Your task to perform on an android device: open app "Facebook Messenger" (install if not already installed) and enter user name: "divorce@inbox.com" and password: "caviar" Image 0: 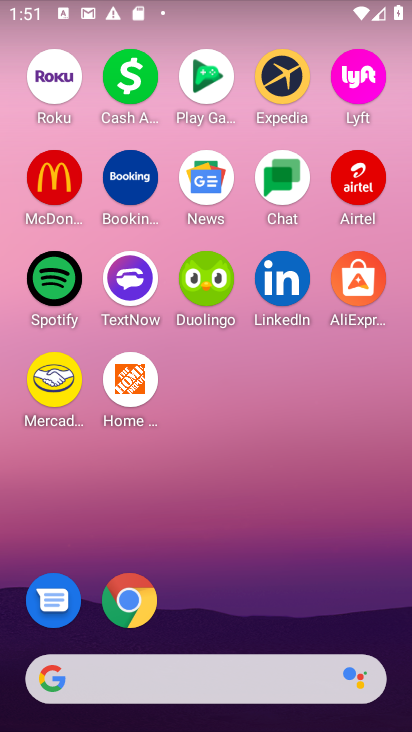
Step 0: drag from (202, 623) to (211, 113)
Your task to perform on an android device: open app "Facebook Messenger" (install if not already installed) and enter user name: "divorce@inbox.com" and password: "caviar" Image 1: 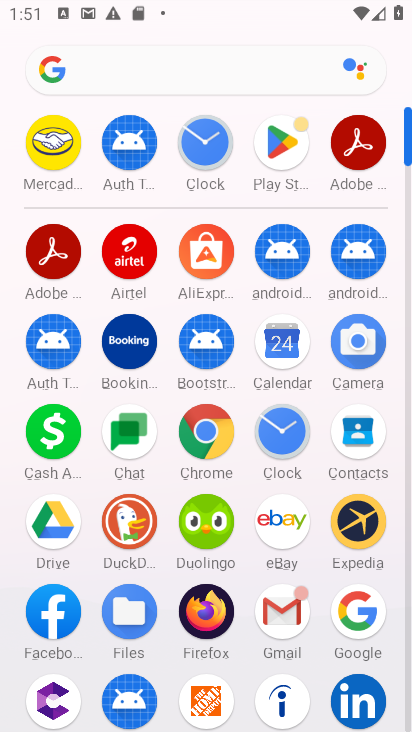
Step 1: click (290, 164)
Your task to perform on an android device: open app "Facebook Messenger" (install if not already installed) and enter user name: "divorce@inbox.com" and password: "caviar" Image 2: 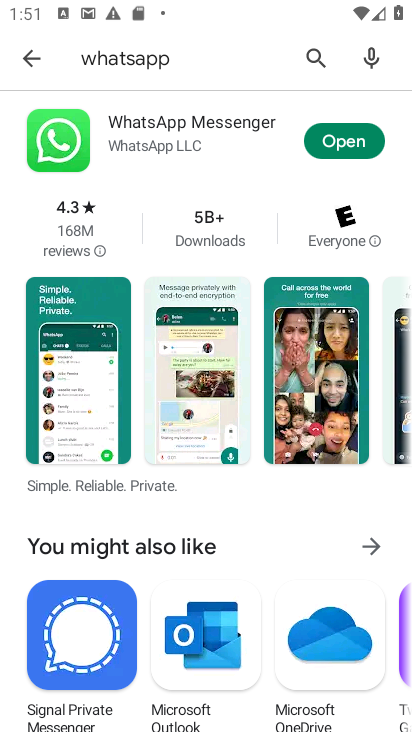
Step 2: click (310, 59)
Your task to perform on an android device: open app "Facebook Messenger" (install if not already installed) and enter user name: "divorce@inbox.com" and password: "caviar" Image 3: 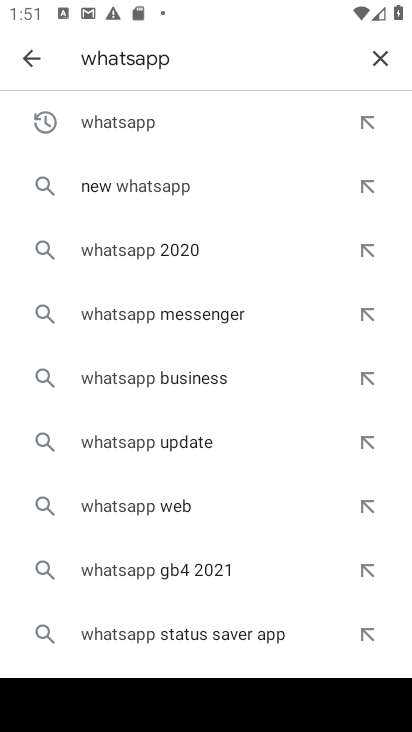
Step 3: click (377, 59)
Your task to perform on an android device: open app "Facebook Messenger" (install if not already installed) and enter user name: "divorce@inbox.com" and password: "caviar" Image 4: 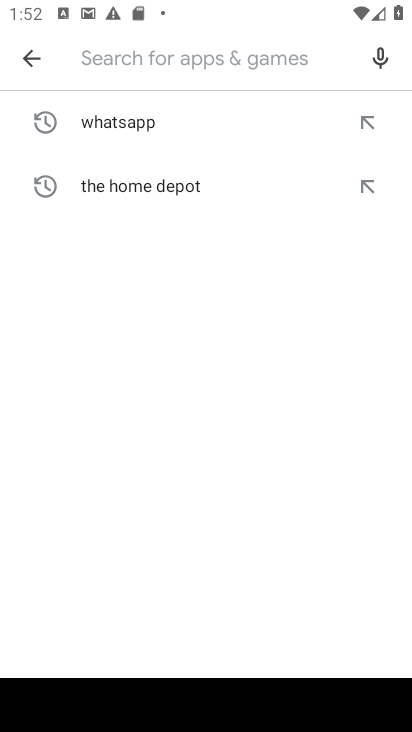
Step 4: type "facebook"
Your task to perform on an android device: open app "Facebook Messenger" (install if not already installed) and enter user name: "divorce@inbox.com" and password: "caviar" Image 5: 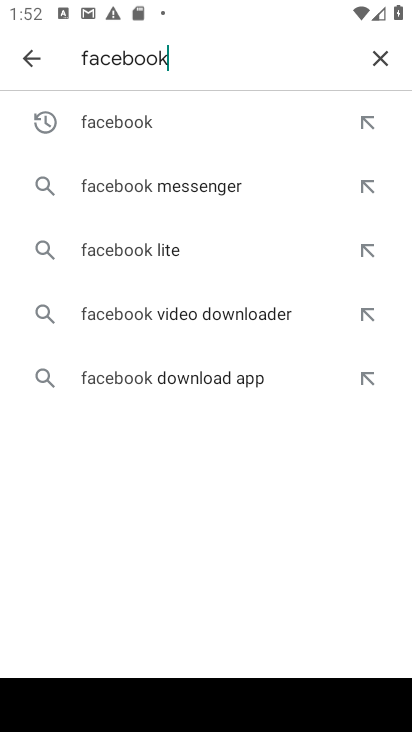
Step 5: click (131, 120)
Your task to perform on an android device: open app "Facebook Messenger" (install if not already installed) and enter user name: "divorce@inbox.com" and password: "caviar" Image 6: 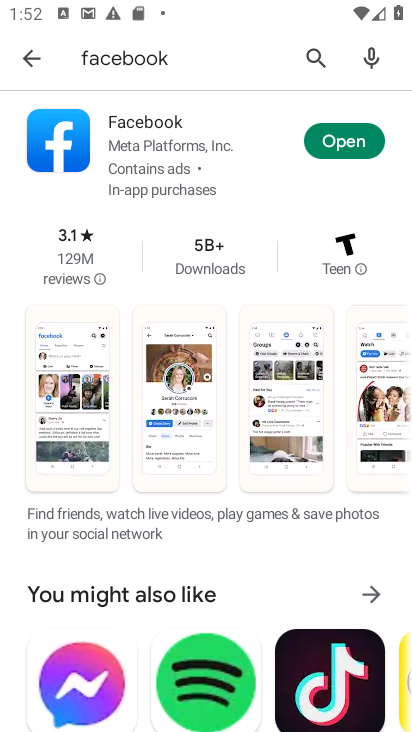
Step 6: click (304, 143)
Your task to perform on an android device: open app "Facebook Messenger" (install if not already installed) and enter user name: "divorce@inbox.com" and password: "caviar" Image 7: 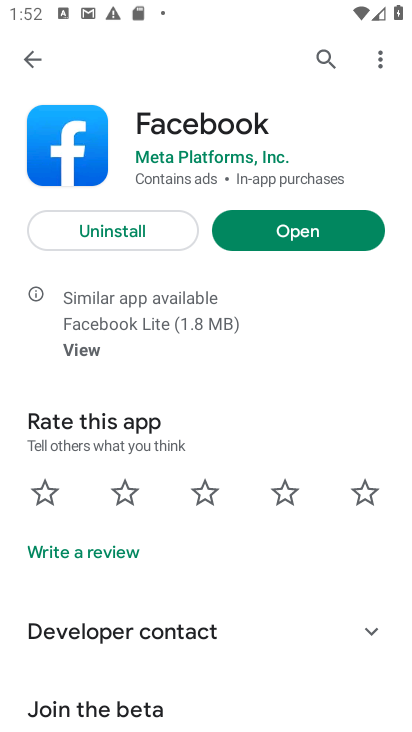
Step 7: click (293, 218)
Your task to perform on an android device: open app "Facebook Messenger" (install if not already installed) and enter user name: "divorce@inbox.com" and password: "caviar" Image 8: 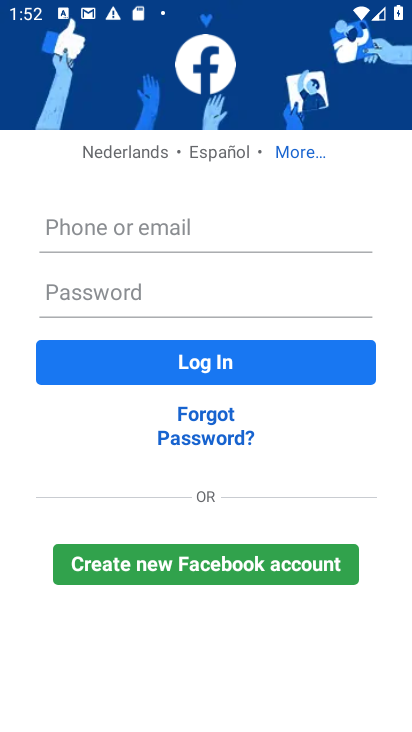
Step 8: click (236, 240)
Your task to perform on an android device: open app "Facebook Messenger" (install if not already installed) and enter user name: "divorce@inbox.com" and password: "caviar" Image 9: 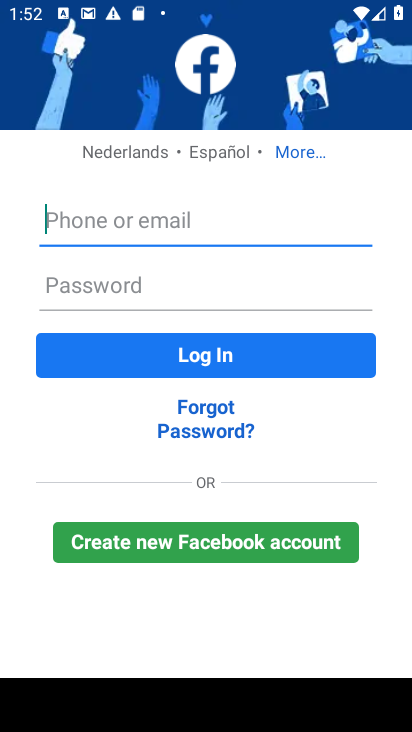
Step 9: type "divorce@inbox.com"
Your task to perform on an android device: open app "Facebook Messenger" (install if not already installed) and enter user name: "divorce@inbox.com" and password: "caviar" Image 10: 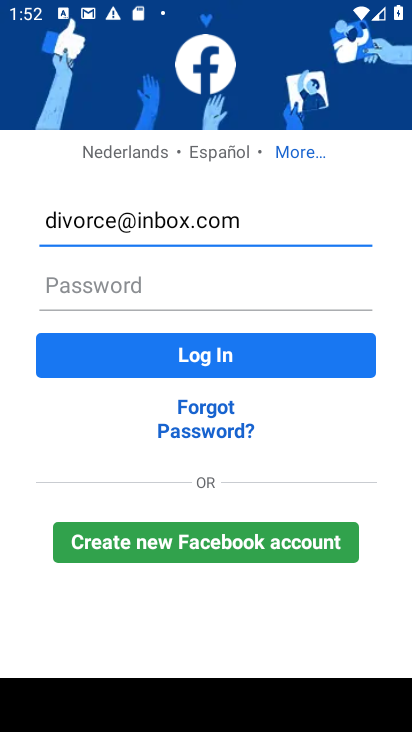
Step 10: click (181, 282)
Your task to perform on an android device: open app "Facebook Messenger" (install if not already installed) and enter user name: "divorce@inbox.com" and password: "caviar" Image 11: 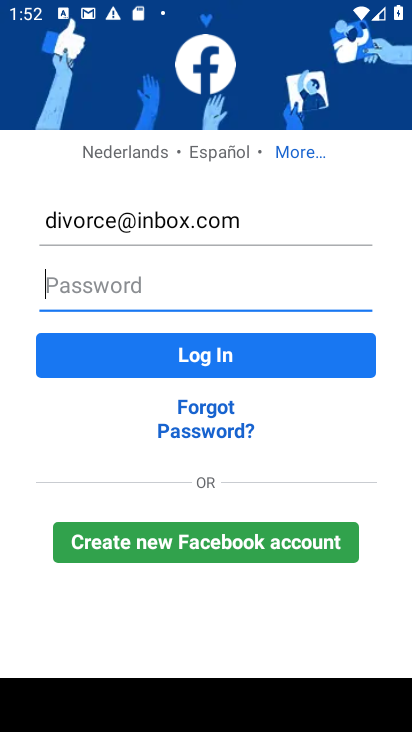
Step 11: type "caviar"
Your task to perform on an android device: open app "Facebook Messenger" (install if not already installed) and enter user name: "divorce@inbox.com" and password: "caviar" Image 12: 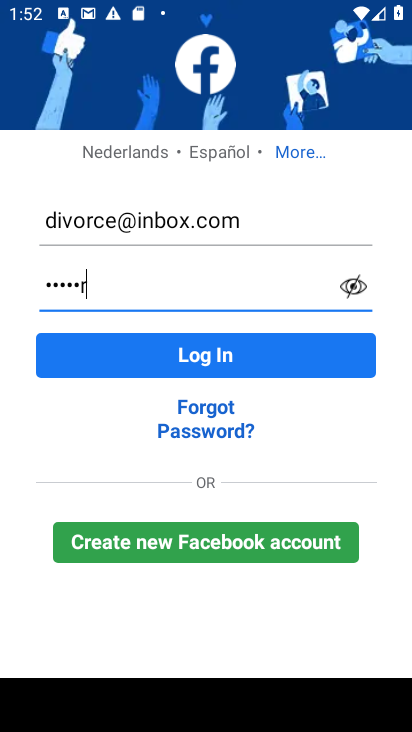
Step 12: click (146, 351)
Your task to perform on an android device: open app "Facebook Messenger" (install if not already installed) and enter user name: "divorce@inbox.com" and password: "caviar" Image 13: 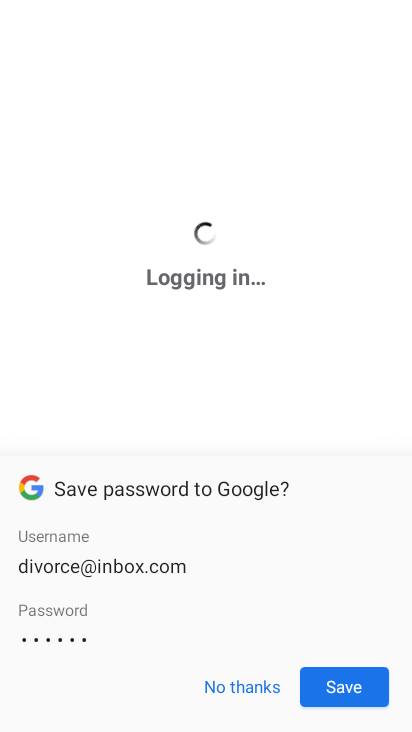
Step 13: click (248, 694)
Your task to perform on an android device: open app "Facebook Messenger" (install if not already installed) and enter user name: "divorce@inbox.com" and password: "caviar" Image 14: 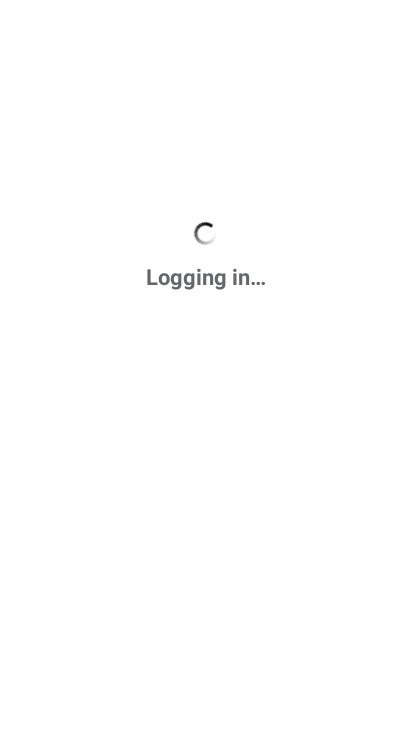
Step 14: task complete